Your task to perform on an android device: open device folders in google photos Image 0: 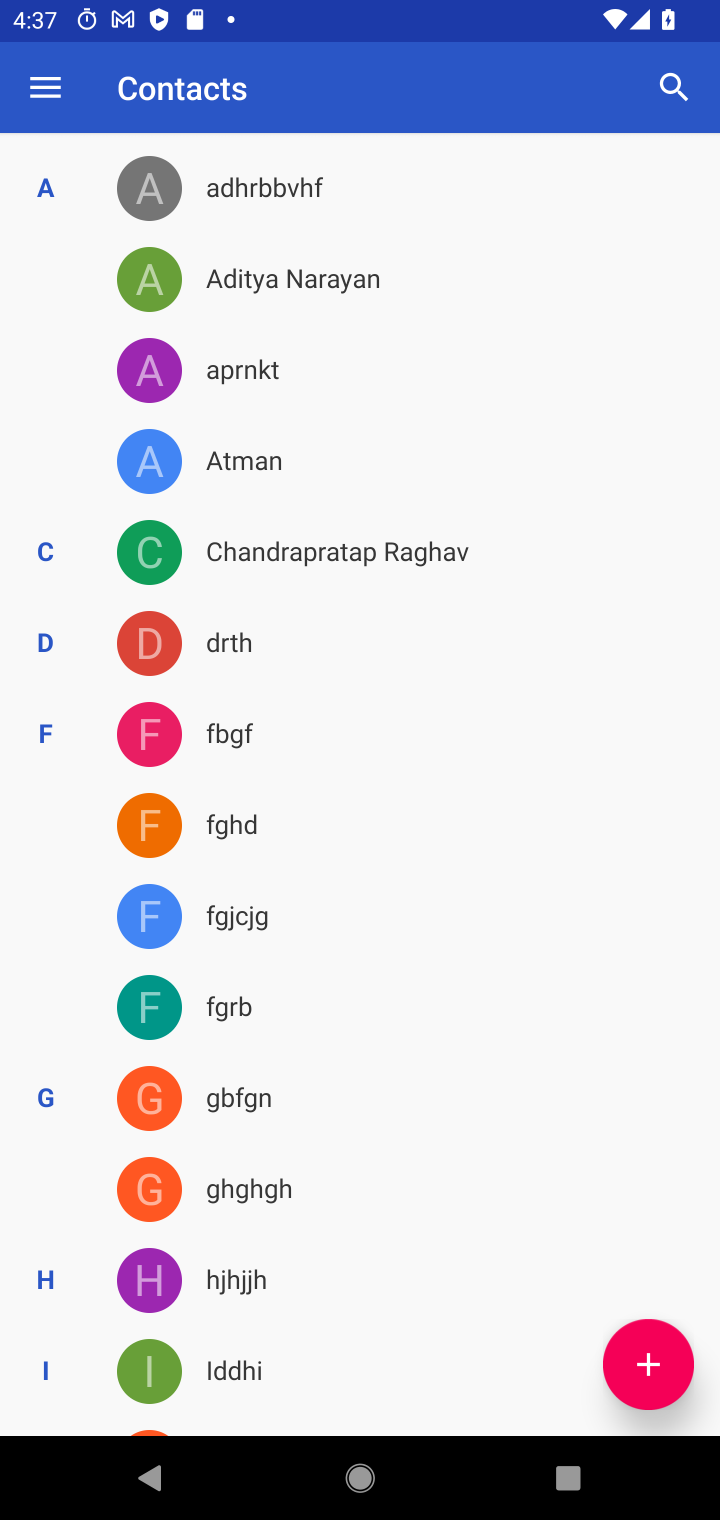
Step 0: press home button
Your task to perform on an android device: open device folders in google photos Image 1: 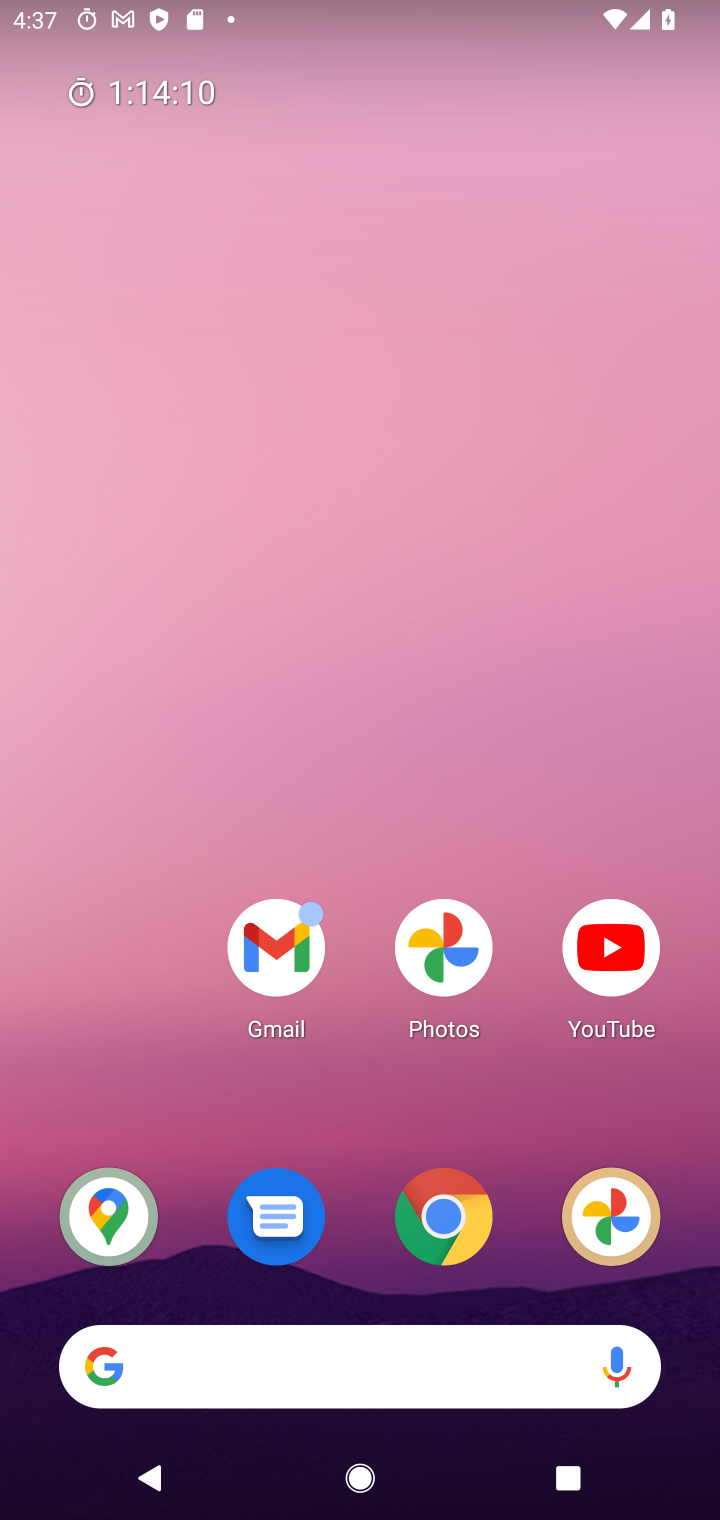
Step 1: drag from (232, 806) to (400, 378)
Your task to perform on an android device: open device folders in google photos Image 2: 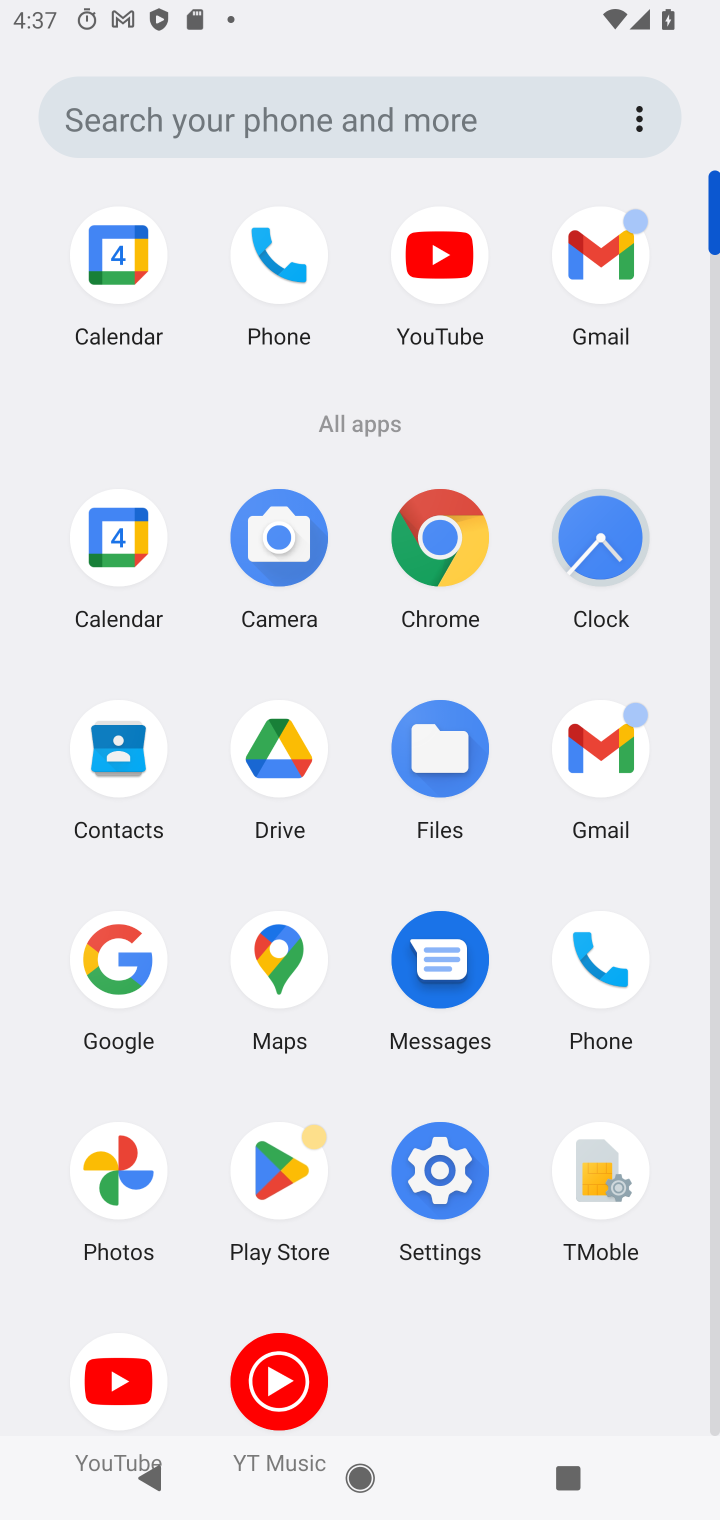
Step 2: click (82, 1193)
Your task to perform on an android device: open device folders in google photos Image 3: 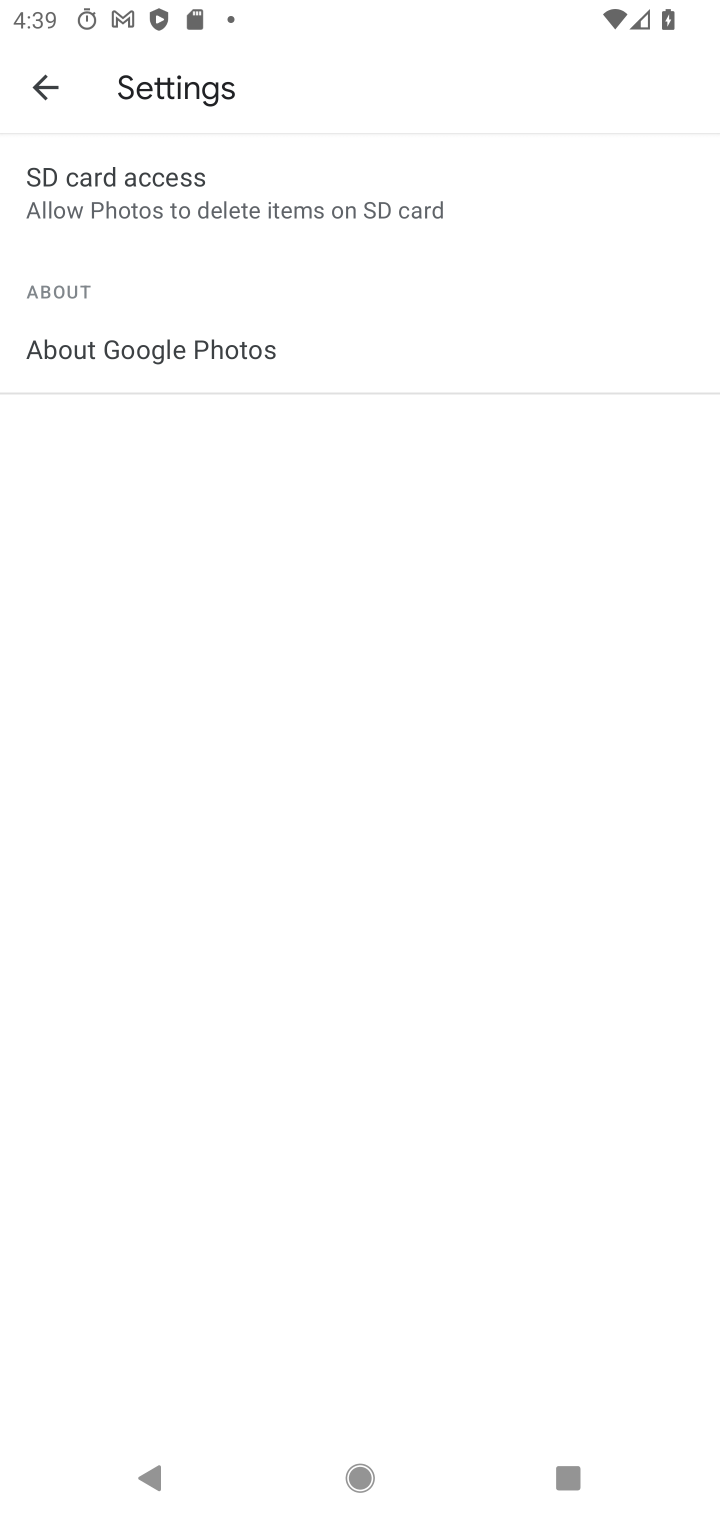
Step 3: press back button
Your task to perform on an android device: open device folders in google photos Image 4: 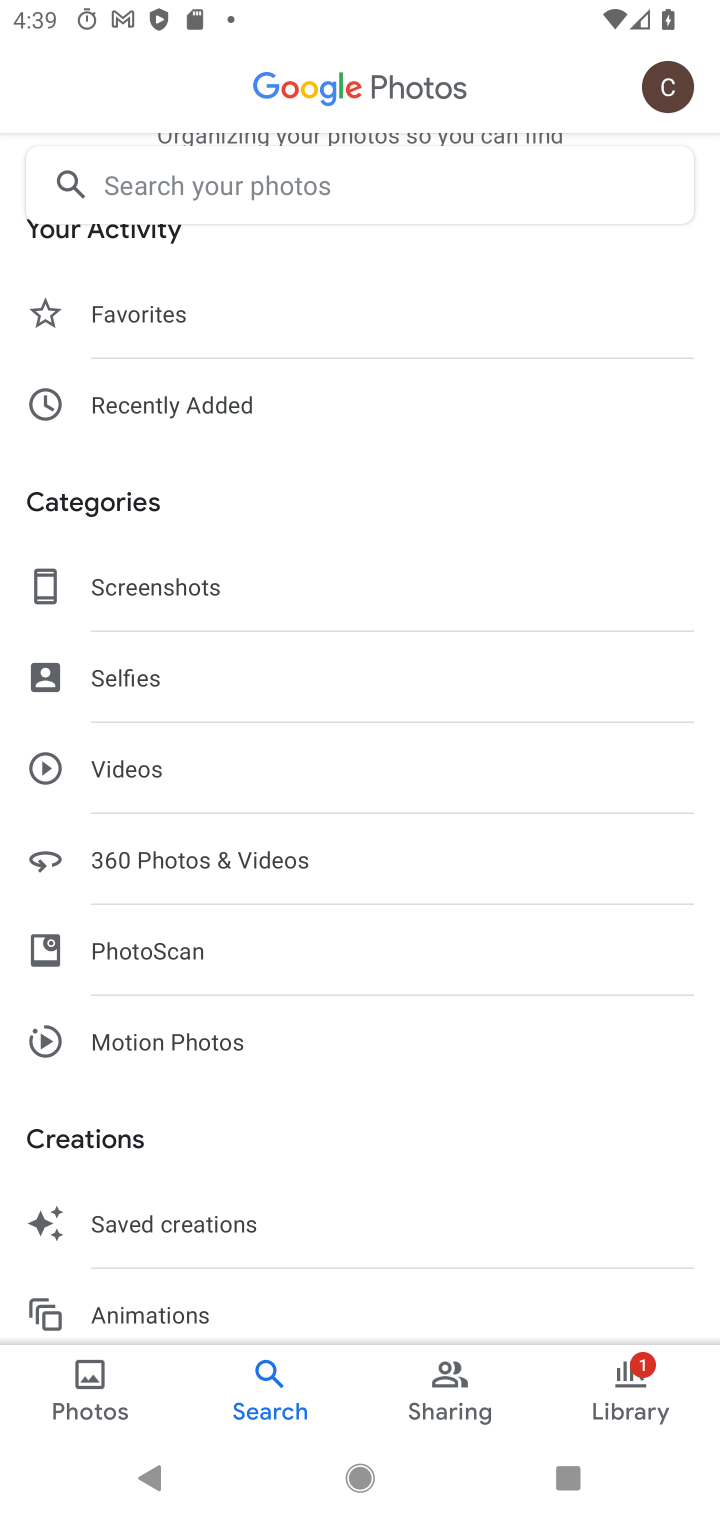
Step 4: press home button
Your task to perform on an android device: open device folders in google photos Image 5: 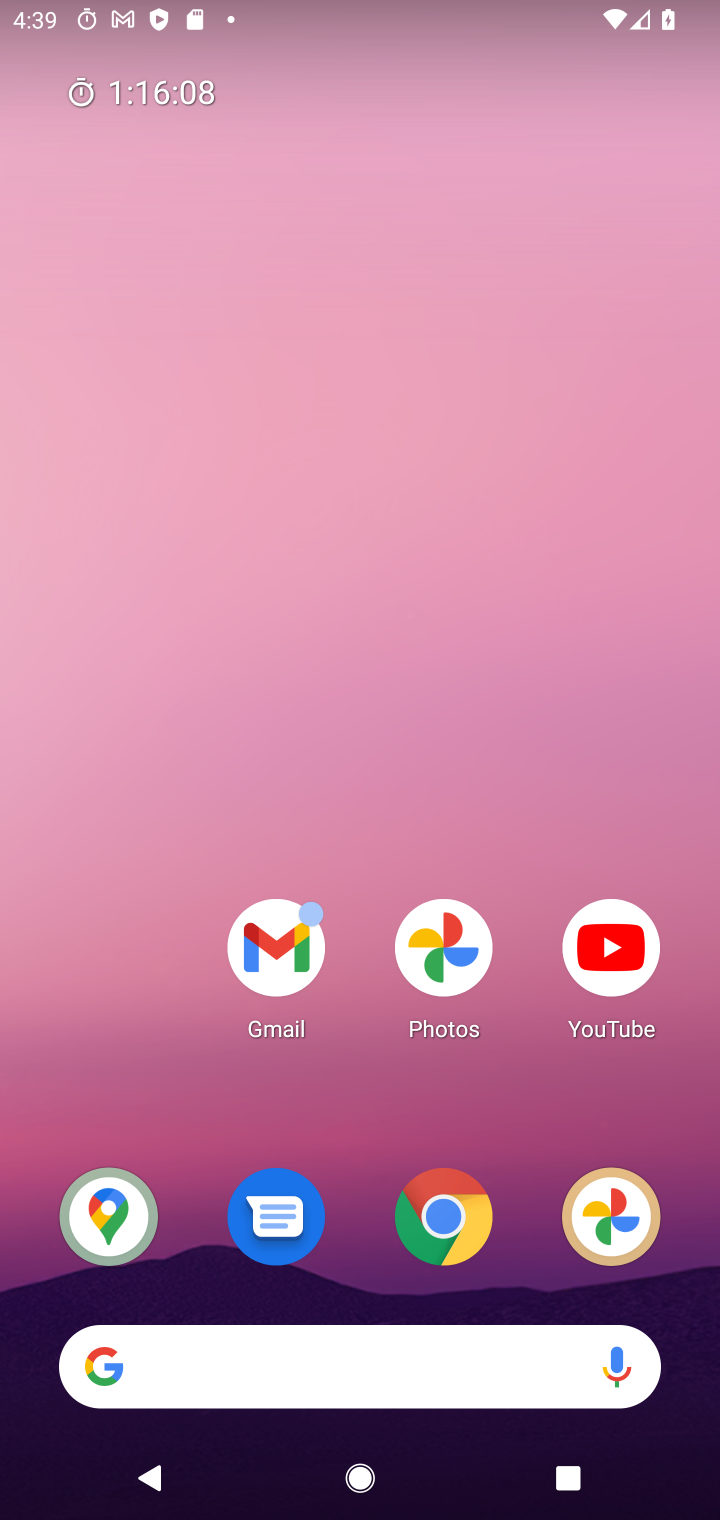
Step 5: click (451, 931)
Your task to perform on an android device: open device folders in google photos Image 6: 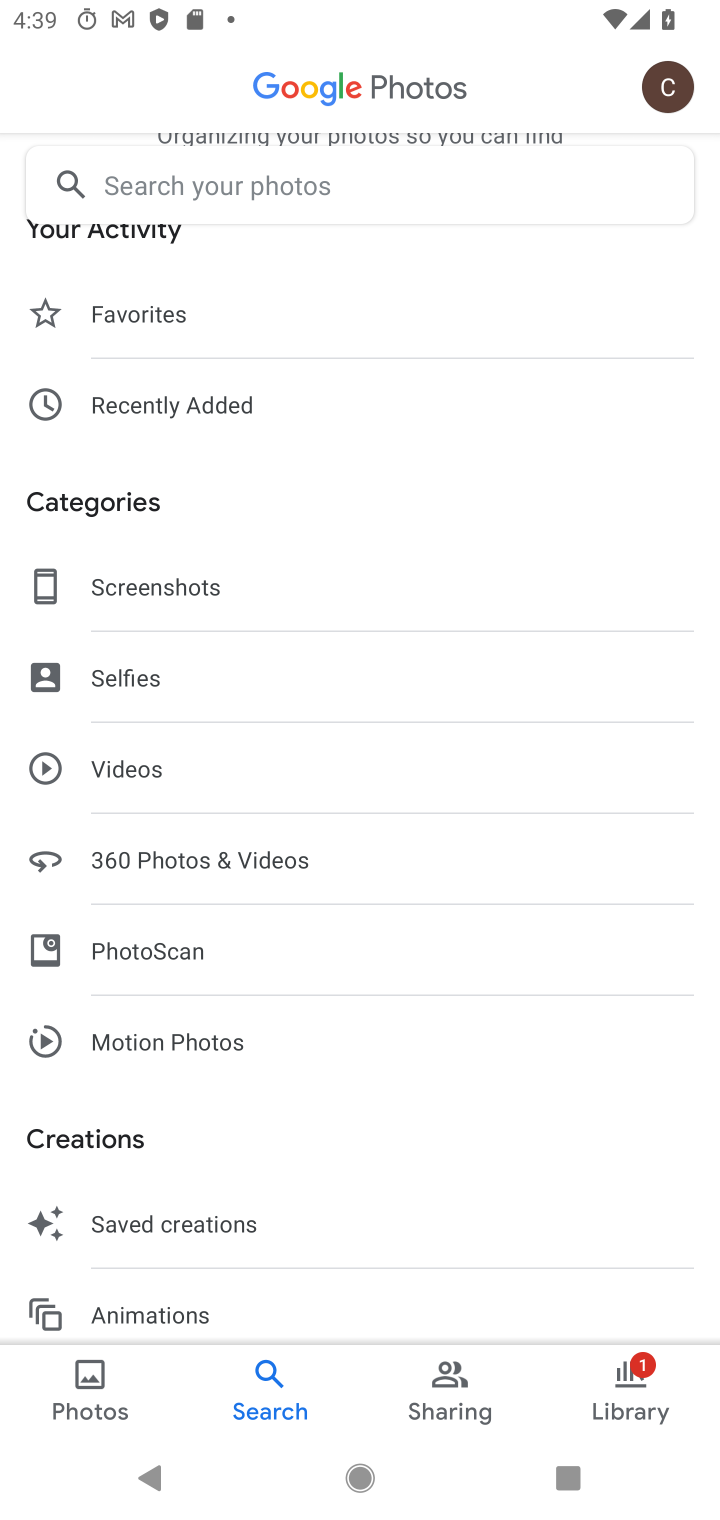
Step 6: click (78, 1364)
Your task to perform on an android device: open device folders in google photos Image 7: 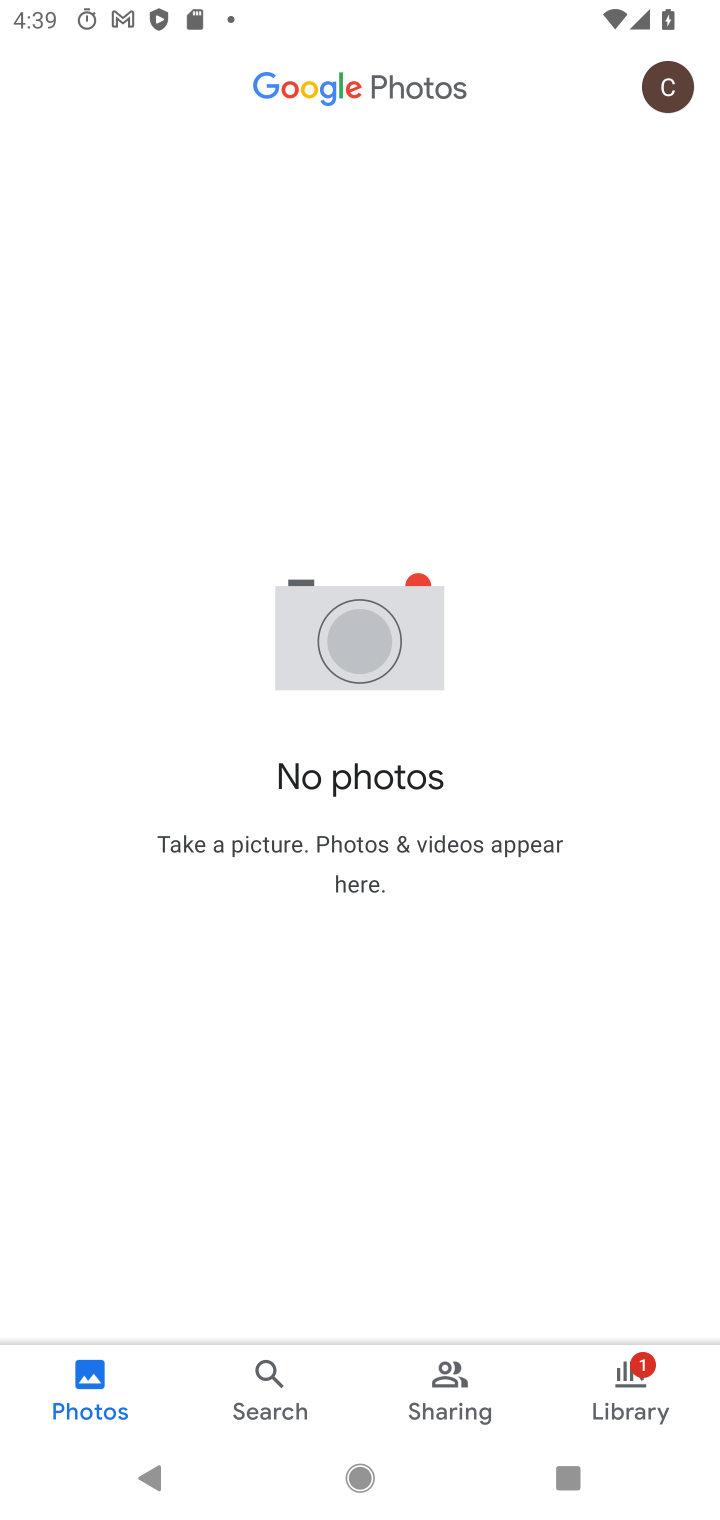
Step 7: click (259, 1393)
Your task to perform on an android device: open device folders in google photos Image 8: 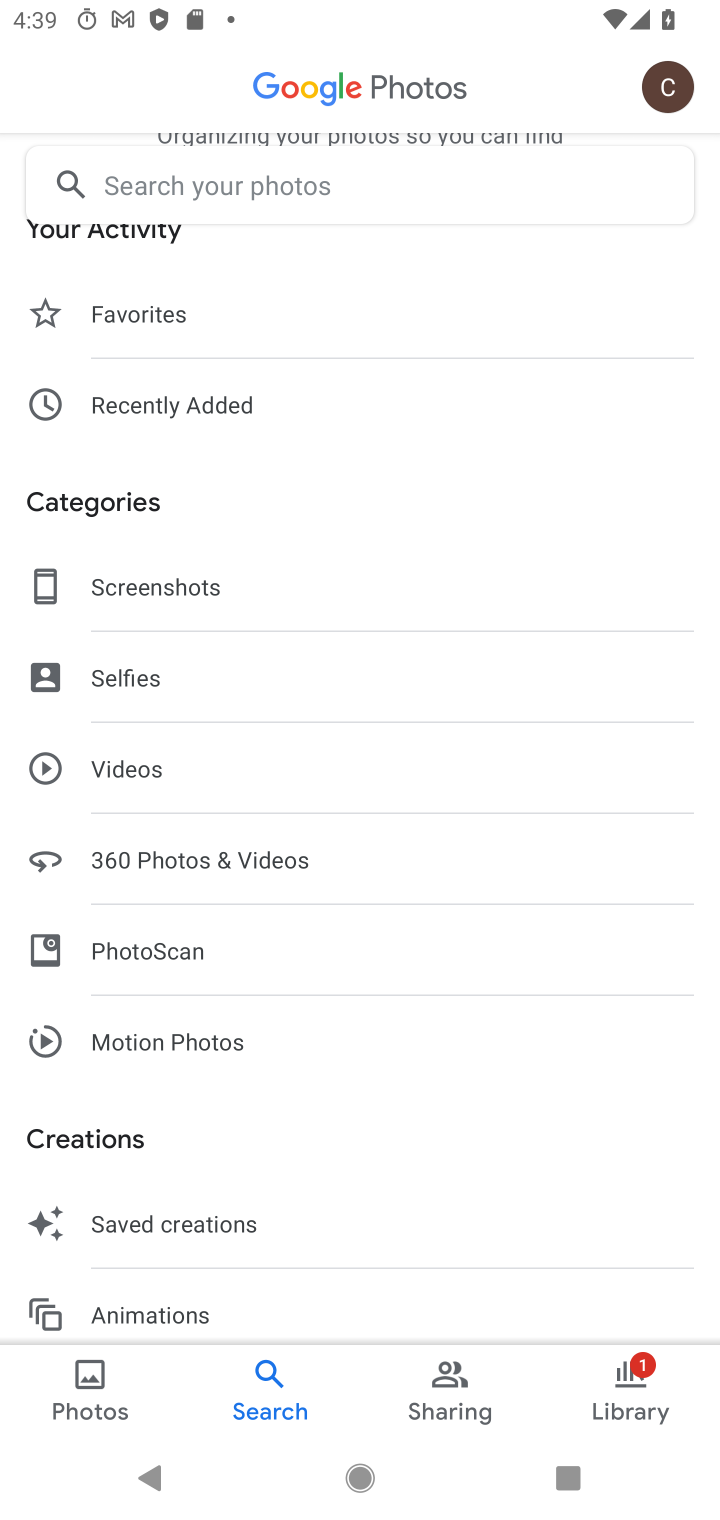
Step 8: click (130, 172)
Your task to perform on an android device: open device folders in google photos Image 9: 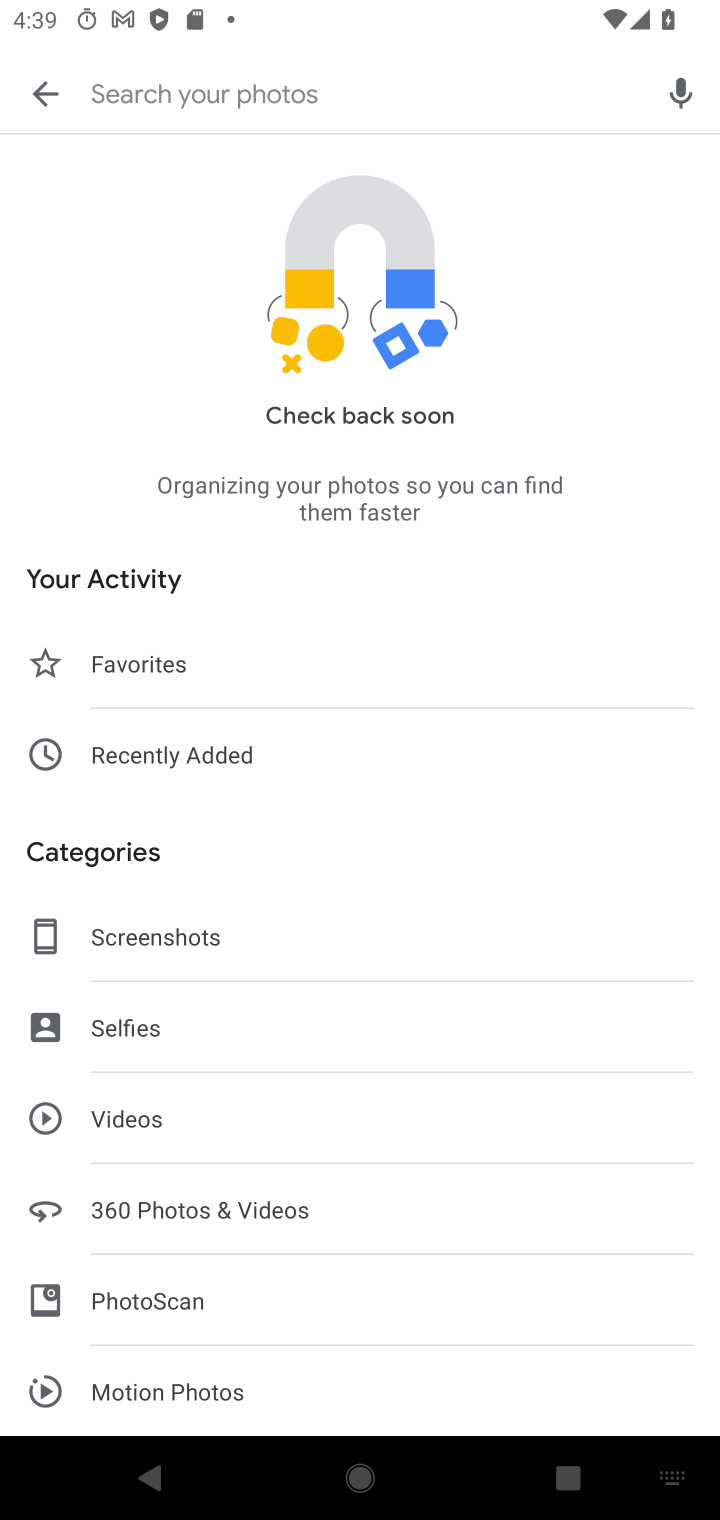
Step 9: task complete